Your task to perform on an android device: Turn off the flashlight Image 0: 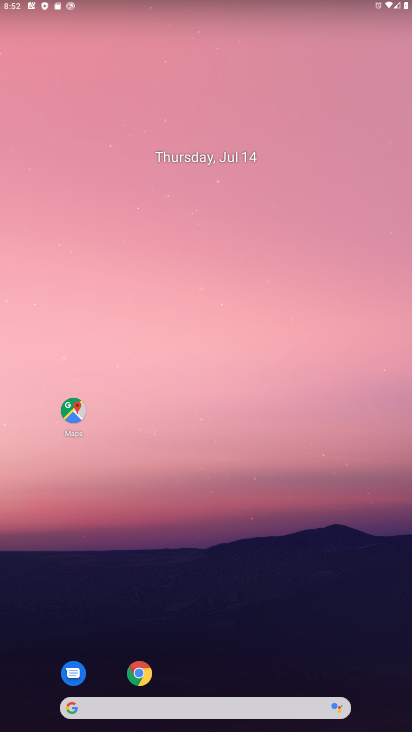
Step 0: drag from (198, 704) to (286, 236)
Your task to perform on an android device: Turn off the flashlight Image 1: 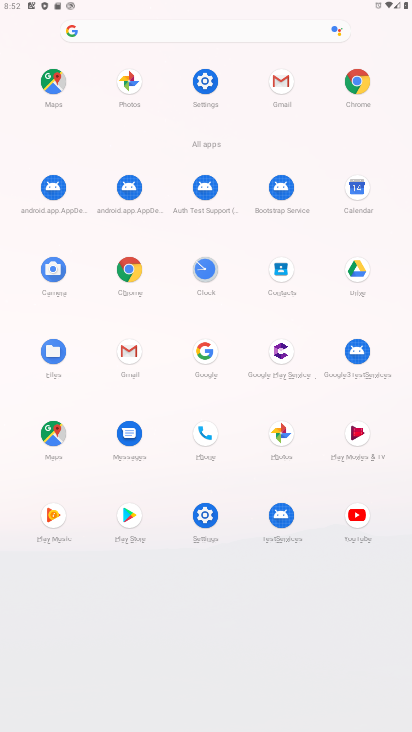
Step 1: click (205, 81)
Your task to perform on an android device: Turn off the flashlight Image 2: 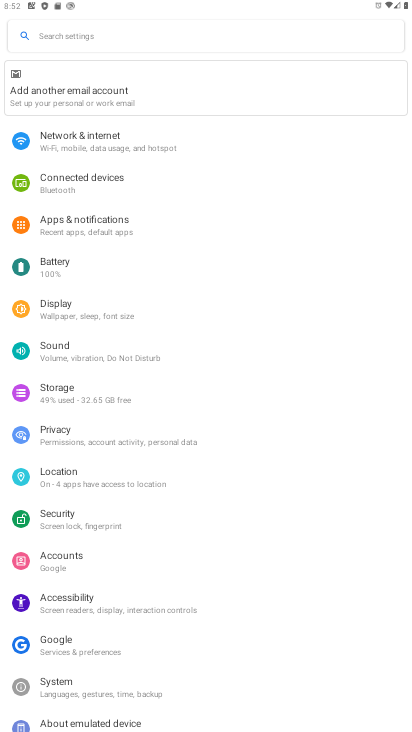
Step 2: click (65, 255)
Your task to perform on an android device: Turn off the flashlight Image 3: 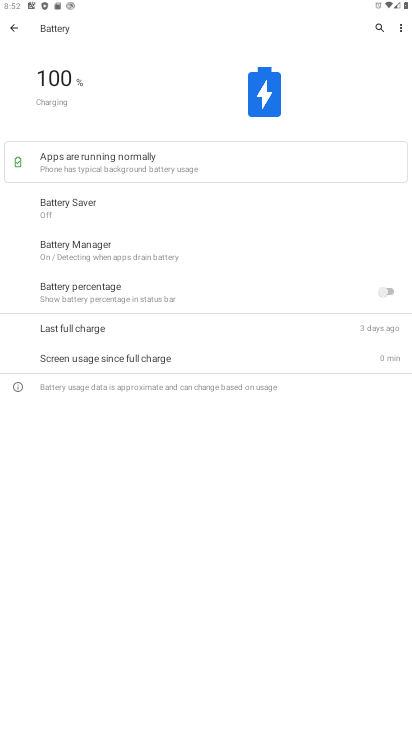
Step 3: press back button
Your task to perform on an android device: Turn off the flashlight Image 4: 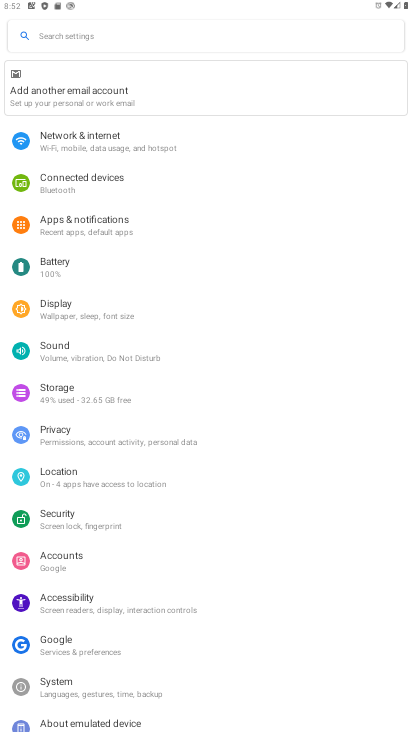
Step 4: click (88, 317)
Your task to perform on an android device: Turn off the flashlight Image 5: 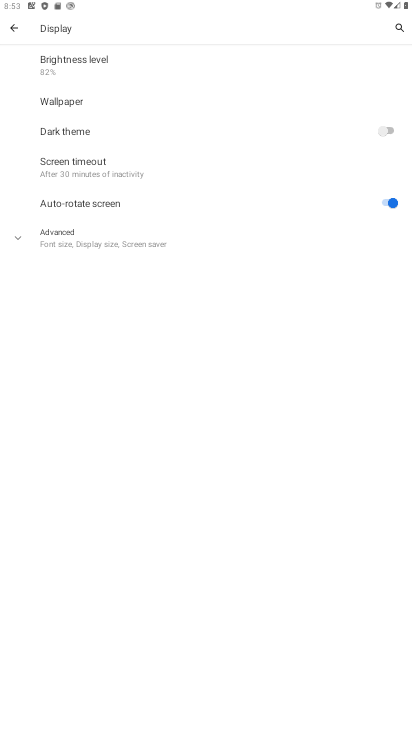
Step 5: click (128, 248)
Your task to perform on an android device: Turn off the flashlight Image 6: 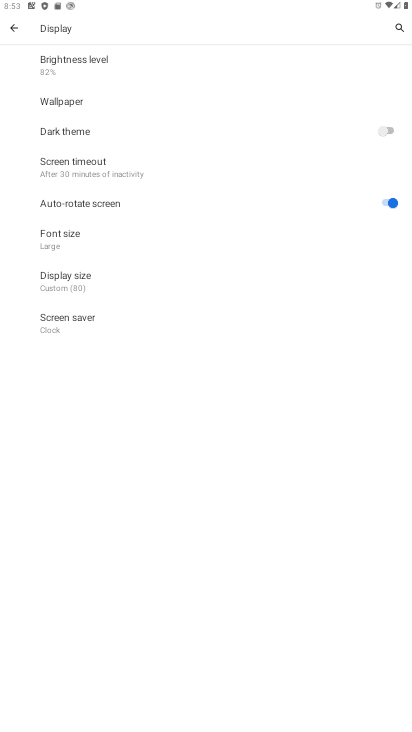
Step 6: press back button
Your task to perform on an android device: Turn off the flashlight Image 7: 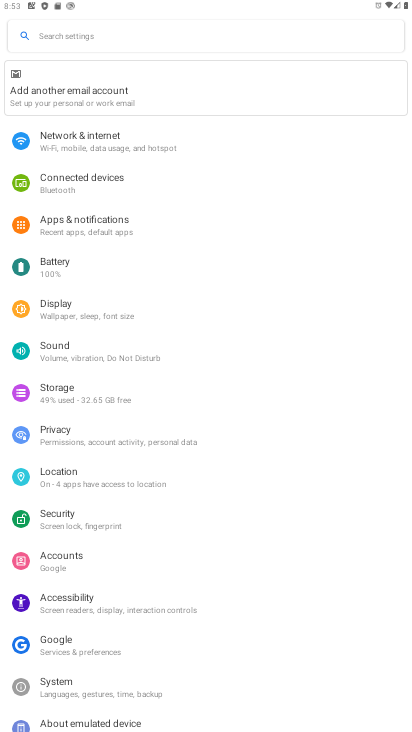
Step 7: click (109, 404)
Your task to perform on an android device: Turn off the flashlight Image 8: 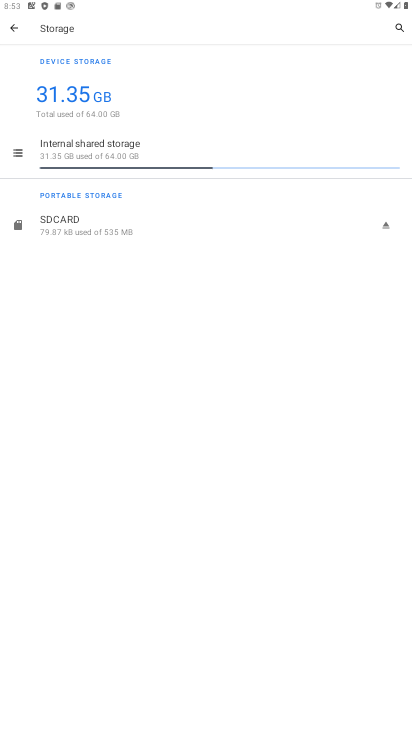
Step 8: task complete